Your task to perform on an android device: Is it going to rain tomorrow? Image 0: 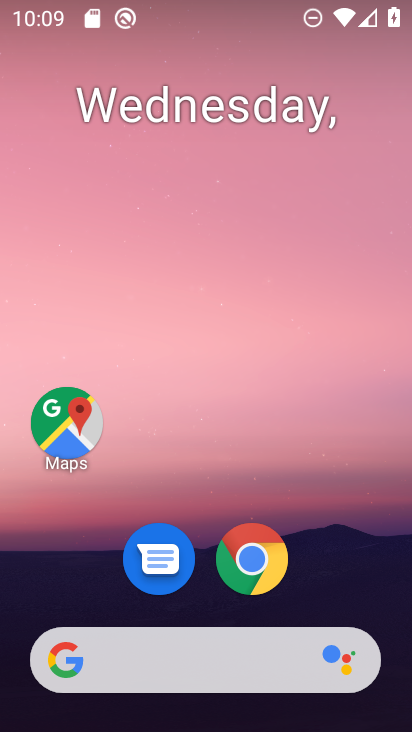
Step 0: click (228, 668)
Your task to perform on an android device: Is it going to rain tomorrow? Image 1: 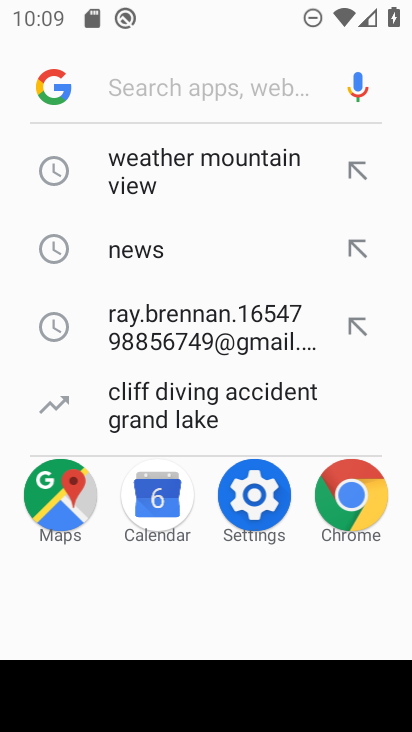
Step 1: click (211, 168)
Your task to perform on an android device: Is it going to rain tomorrow? Image 2: 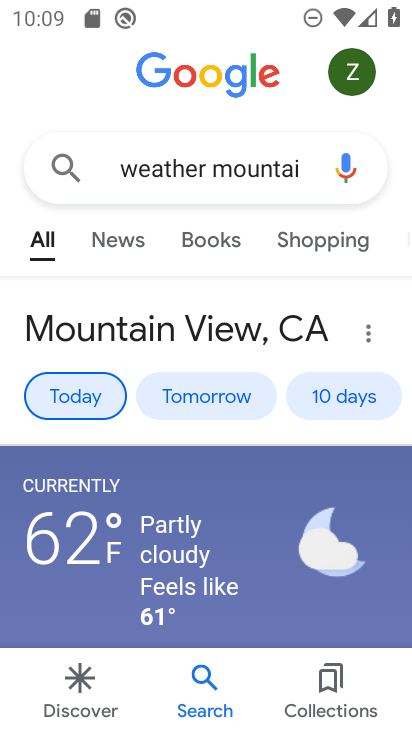
Step 2: click (234, 389)
Your task to perform on an android device: Is it going to rain tomorrow? Image 3: 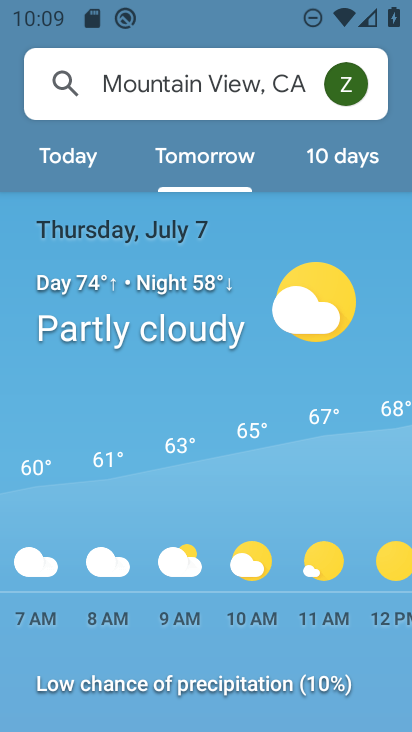
Step 3: task complete